Your task to perform on an android device: Open calendar and show me the first week of next month Image 0: 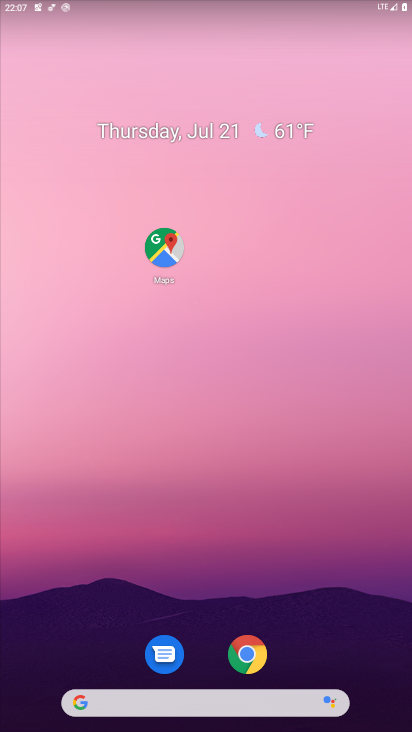
Step 0: drag from (43, 634) to (148, 34)
Your task to perform on an android device: Open calendar and show me the first week of next month Image 1: 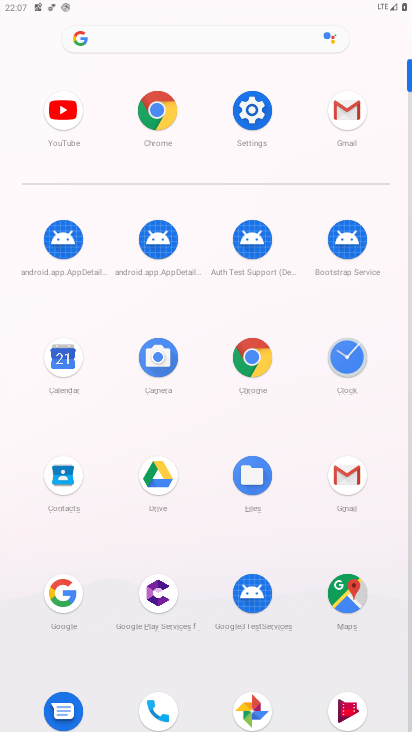
Step 1: click (48, 365)
Your task to perform on an android device: Open calendar and show me the first week of next month Image 2: 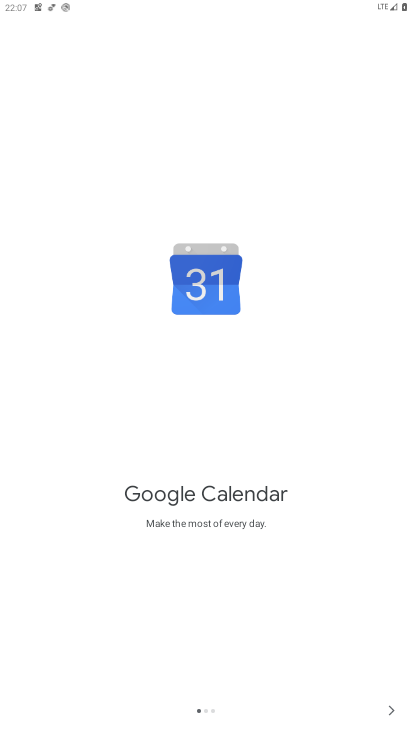
Step 2: click (383, 702)
Your task to perform on an android device: Open calendar and show me the first week of next month Image 3: 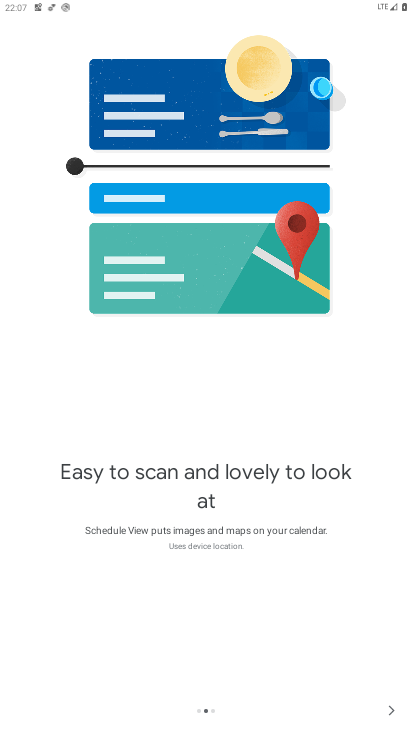
Step 3: click (394, 711)
Your task to perform on an android device: Open calendar and show me the first week of next month Image 4: 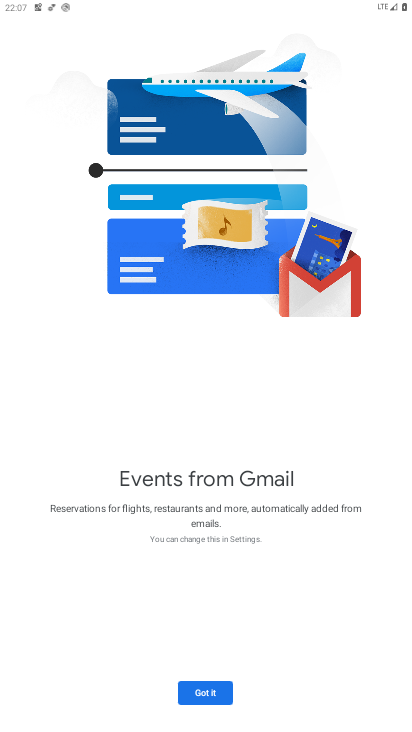
Step 4: click (211, 686)
Your task to perform on an android device: Open calendar and show me the first week of next month Image 5: 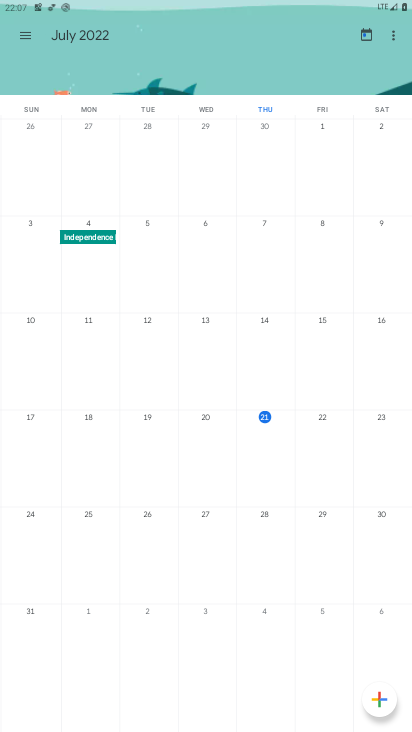
Step 5: drag from (368, 344) to (120, 337)
Your task to perform on an android device: Open calendar and show me the first week of next month Image 6: 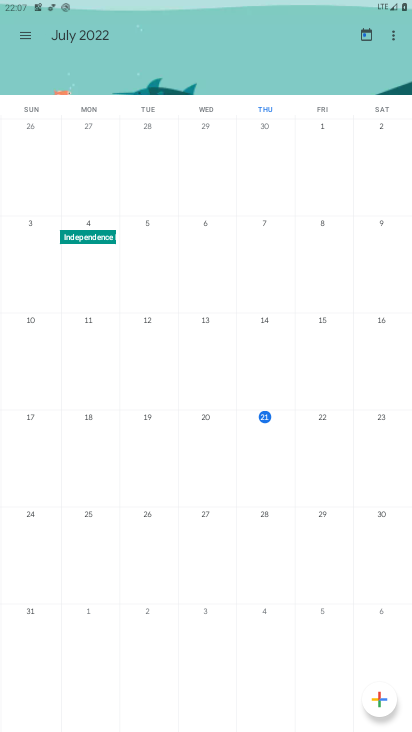
Step 6: drag from (381, 309) to (30, 405)
Your task to perform on an android device: Open calendar and show me the first week of next month Image 7: 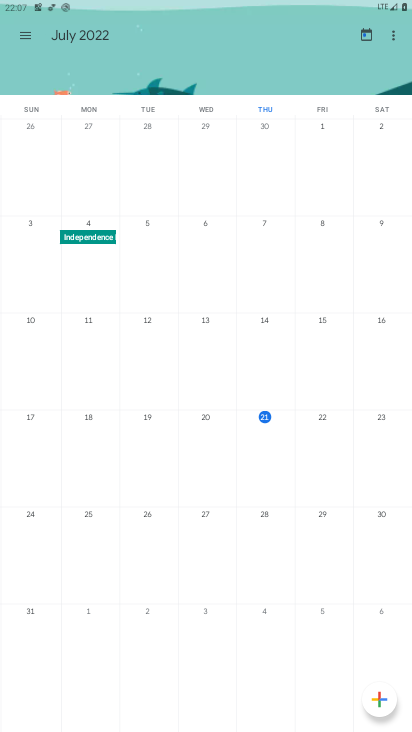
Step 7: drag from (405, 202) to (55, 257)
Your task to perform on an android device: Open calendar and show me the first week of next month Image 8: 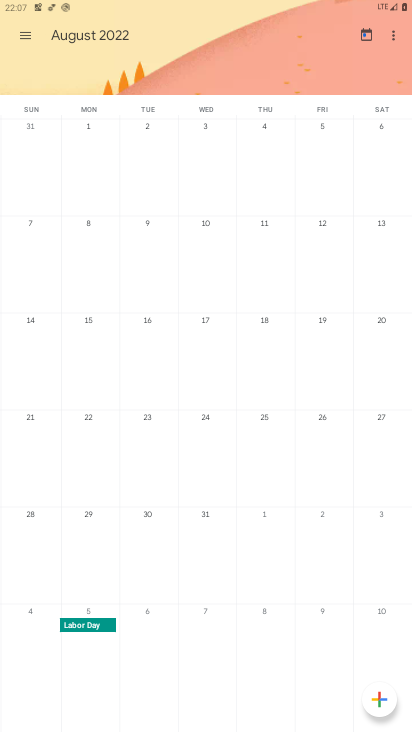
Step 8: click (89, 121)
Your task to perform on an android device: Open calendar and show me the first week of next month Image 9: 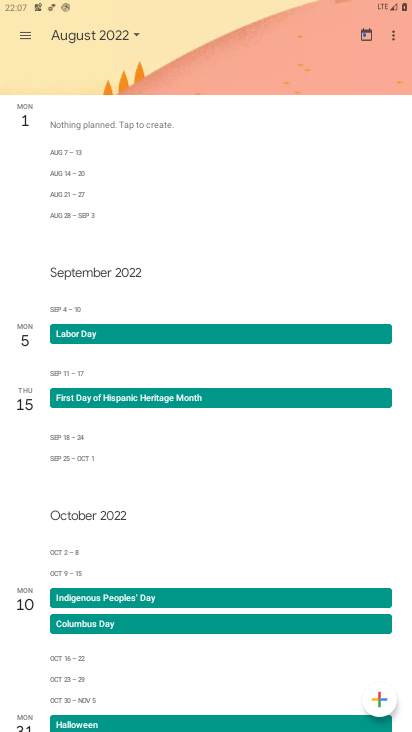
Step 9: task complete